Your task to perform on an android device: Go to Google maps Image 0: 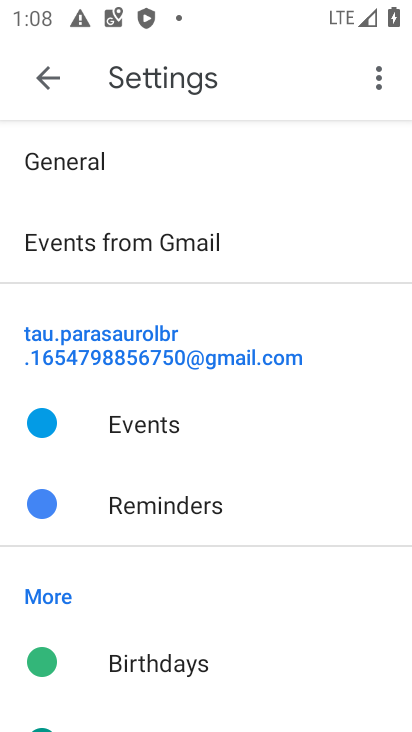
Step 0: press home button
Your task to perform on an android device: Go to Google maps Image 1: 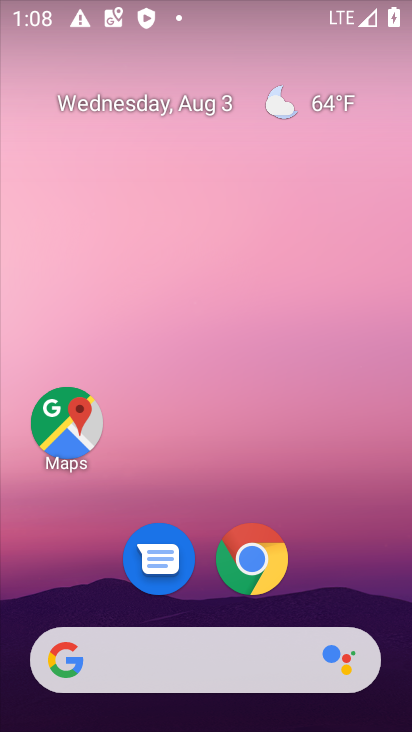
Step 1: drag from (212, 616) to (221, 87)
Your task to perform on an android device: Go to Google maps Image 2: 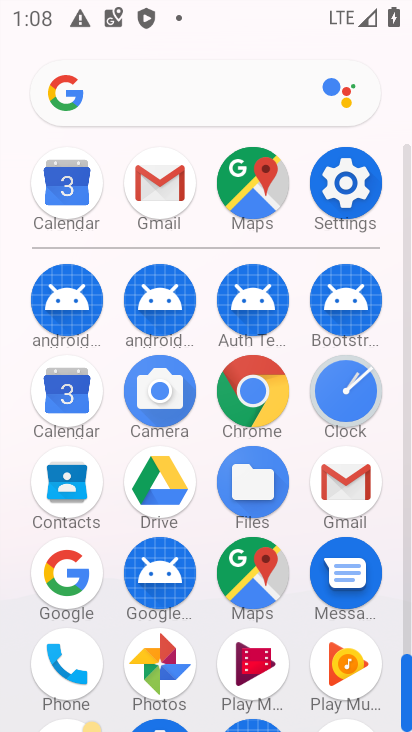
Step 2: click (263, 577)
Your task to perform on an android device: Go to Google maps Image 3: 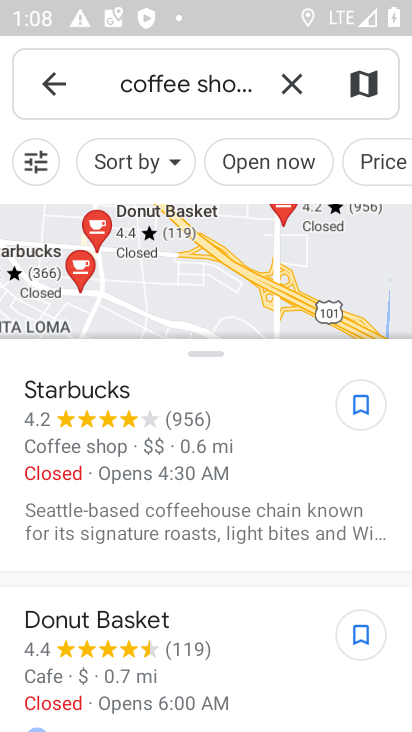
Step 3: task complete